Your task to perform on an android device: stop showing notifications on the lock screen Image 0: 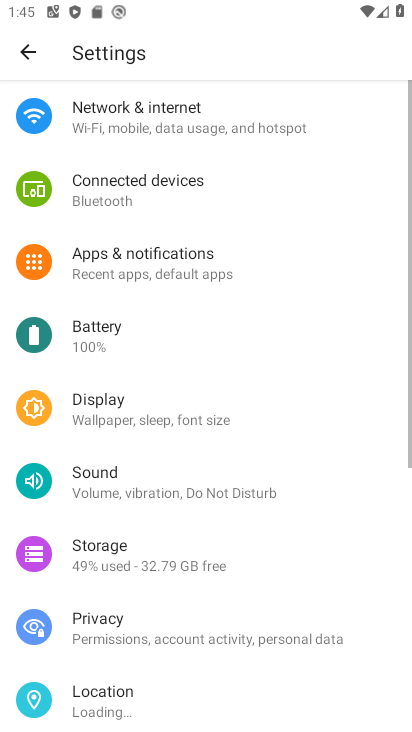
Step 0: press home button
Your task to perform on an android device: stop showing notifications on the lock screen Image 1: 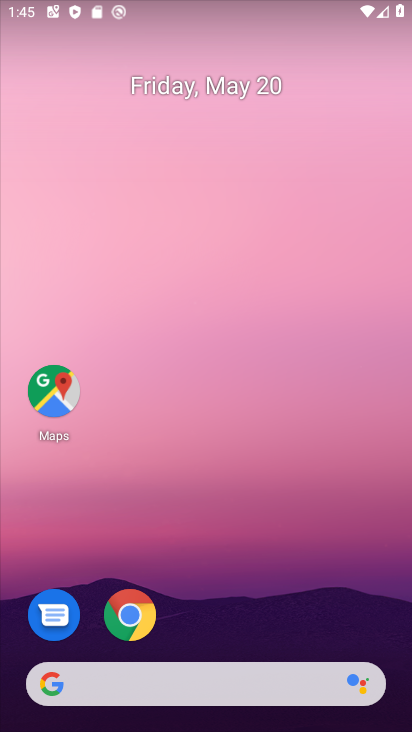
Step 1: drag from (245, 604) to (246, 358)
Your task to perform on an android device: stop showing notifications on the lock screen Image 2: 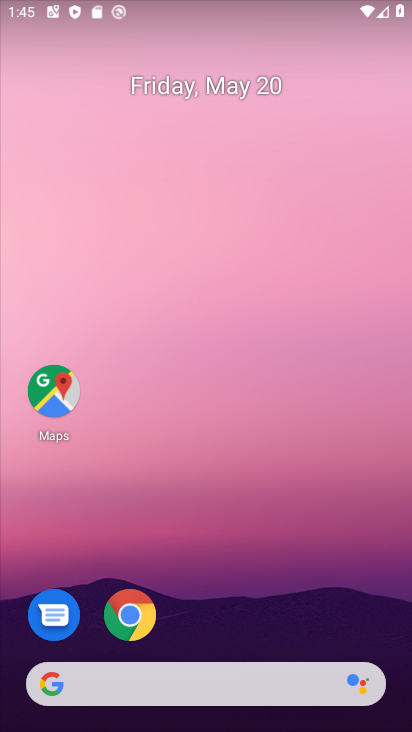
Step 2: drag from (240, 559) to (255, 311)
Your task to perform on an android device: stop showing notifications on the lock screen Image 3: 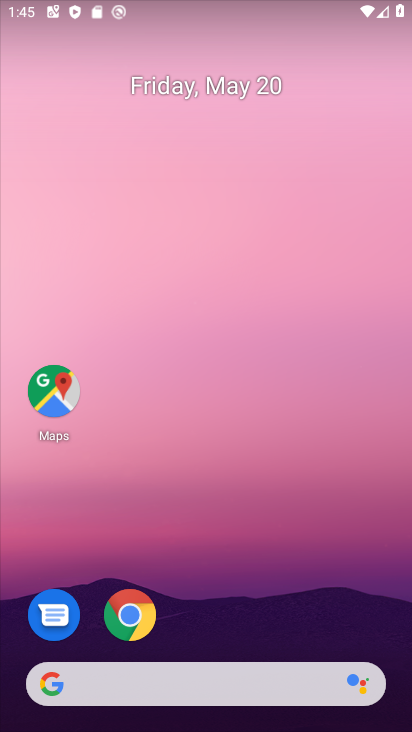
Step 3: drag from (222, 616) to (235, 220)
Your task to perform on an android device: stop showing notifications on the lock screen Image 4: 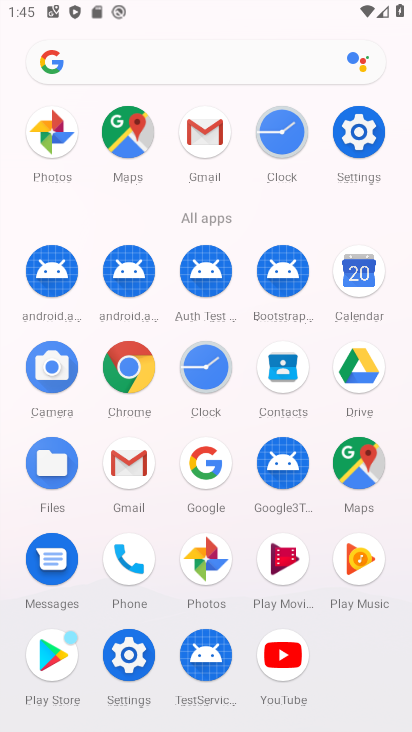
Step 4: click (116, 651)
Your task to perform on an android device: stop showing notifications on the lock screen Image 5: 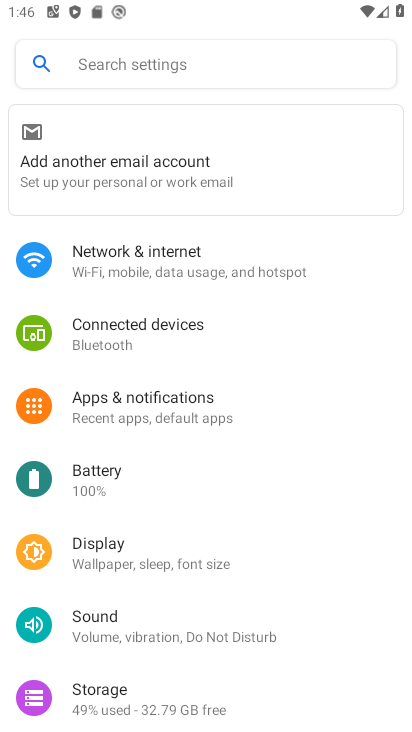
Step 5: click (167, 400)
Your task to perform on an android device: stop showing notifications on the lock screen Image 6: 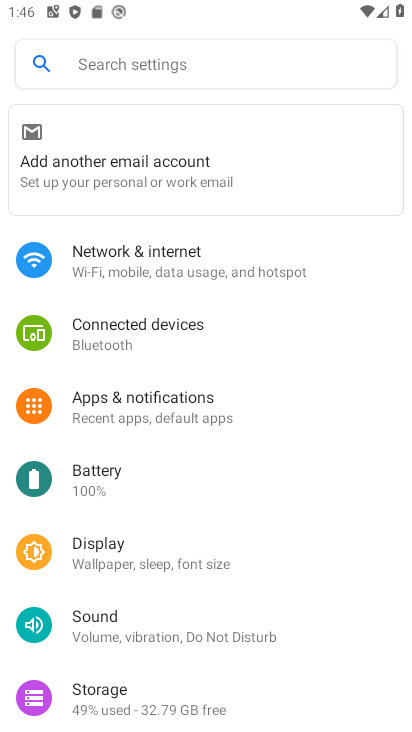
Step 6: click (155, 395)
Your task to perform on an android device: stop showing notifications on the lock screen Image 7: 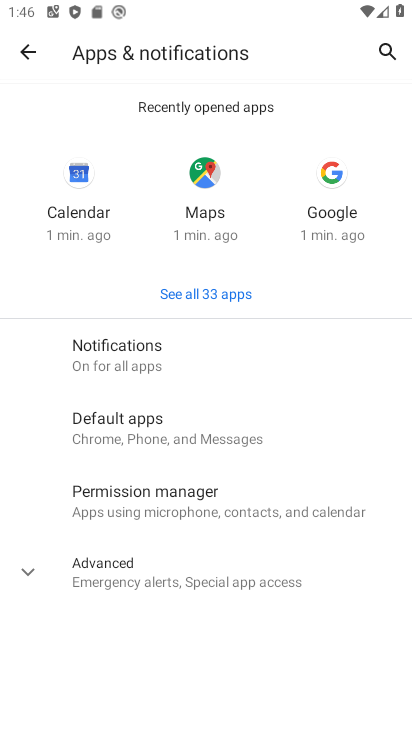
Step 7: click (149, 356)
Your task to perform on an android device: stop showing notifications on the lock screen Image 8: 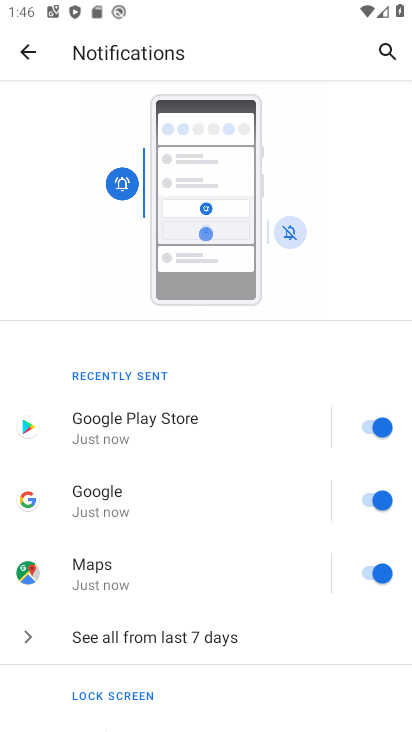
Step 8: drag from (186, 537) to (218, 323)
Your task to perform on an android device: stop showing notifications on the lock screen Image 9: 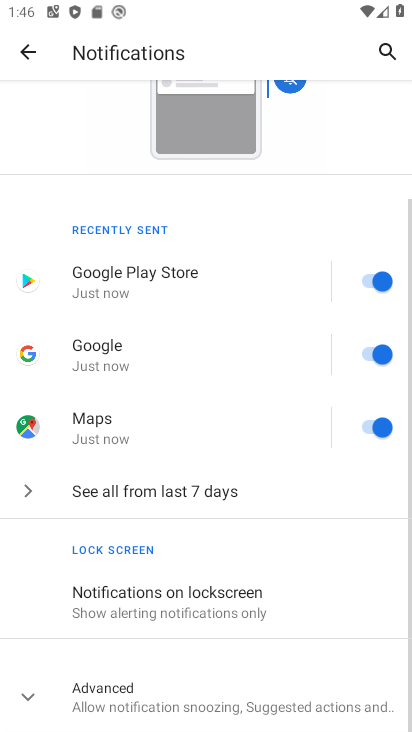
Step 9: click (277, 600)
Your task to perform on an android device: stop showing notifications on the lock screen Image 10: 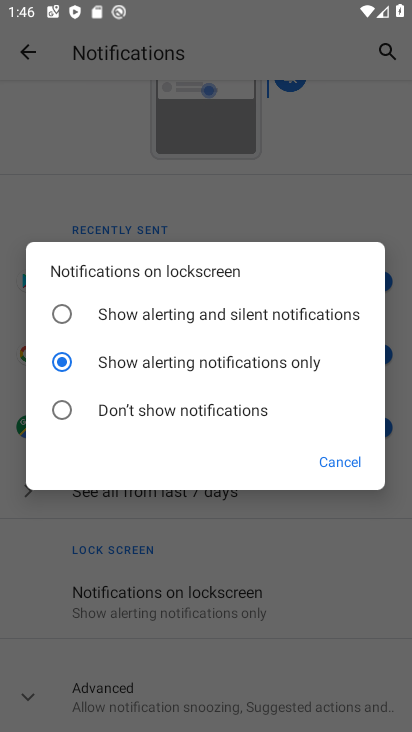
Step 10: click (172, 398)
Your task to perform on an android device: stop showing notifications on the lock screen Image 11: 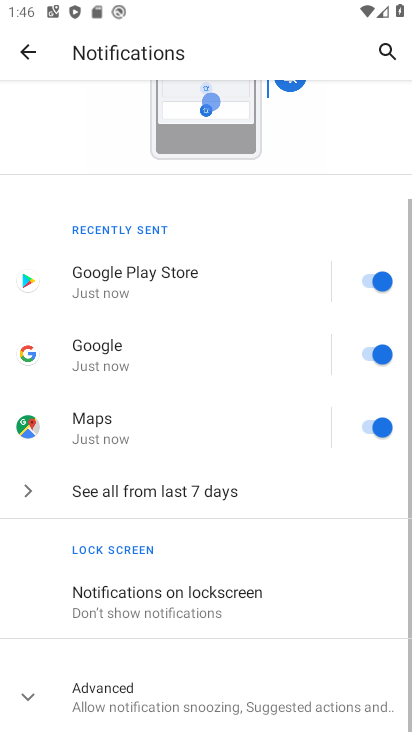
Step 11: task complete